Your task to perform on an android device: Go to Yahoo.com Image 0: 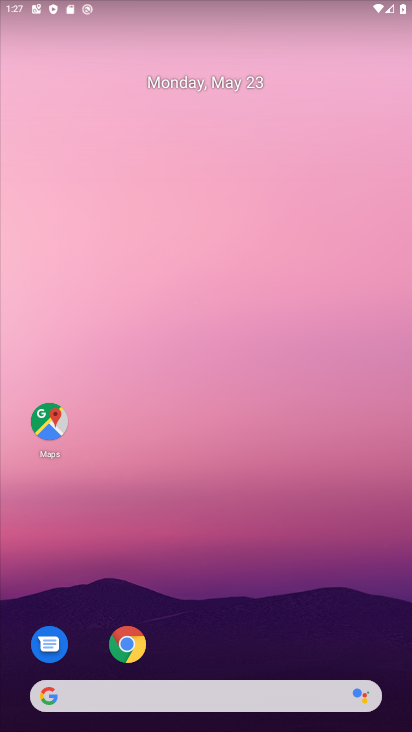
Step 0: drag from (286, 535) to (217, 4)
Your task to perform on an android device: Go to Yahoo.com Image 1: 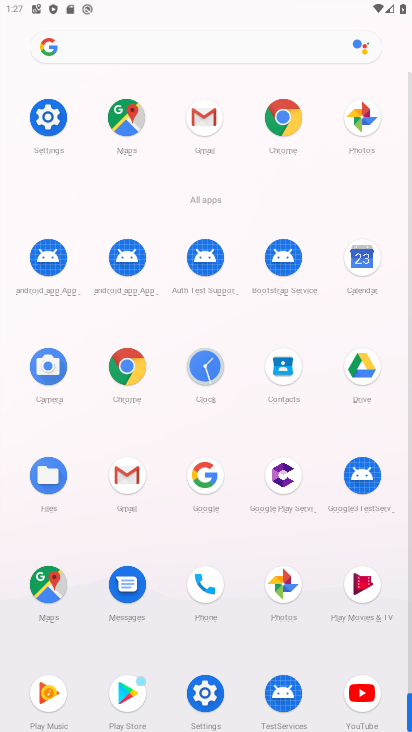
Step 1: drag from (0, 511) to (5, 134)
Your task to perform on an android device: Go to Yahoo.com Image 2: 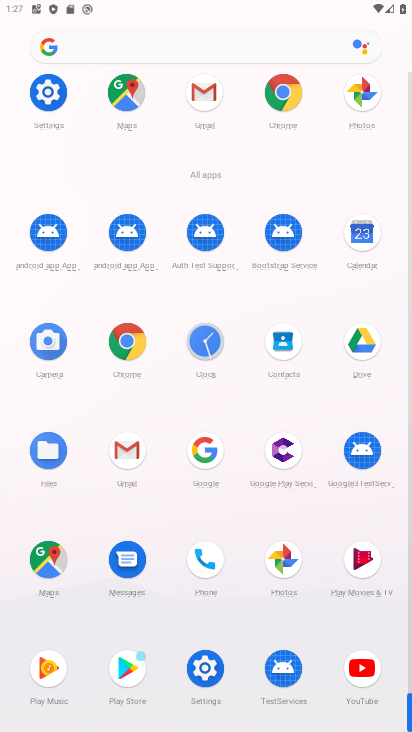
Step 2: click (126, 339)
Your task to perform on an android device: Go to Yahoo.com Image 3: 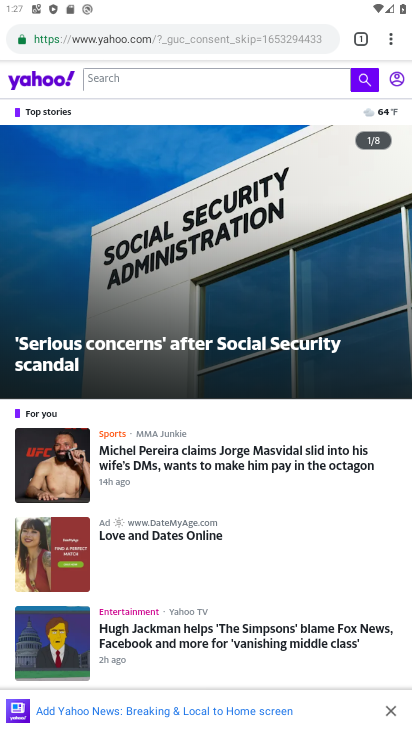
Step 3: task complete